Your task to perform on an android device: Show the shopping cart on costco. Search for "razer blade" on costco, select the first entry, add it to the cart, then select checkout. Image 0: 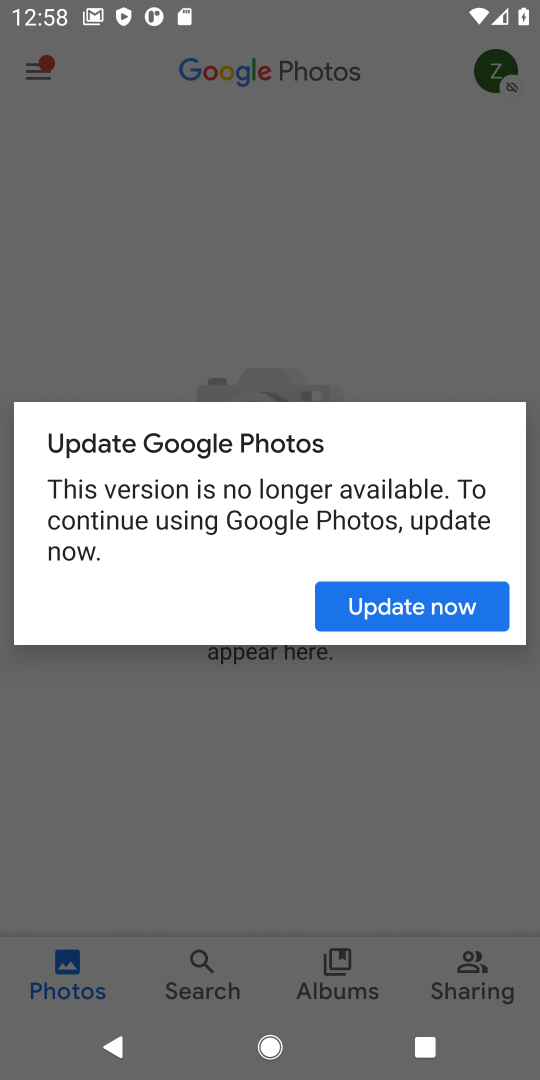
Step 0: press home button
Your task to perform on an android device: Show the shopping cart on costco. Search for "razer blade" on costco, select the first entry, add it to the cart, then select checkout. Image 1: 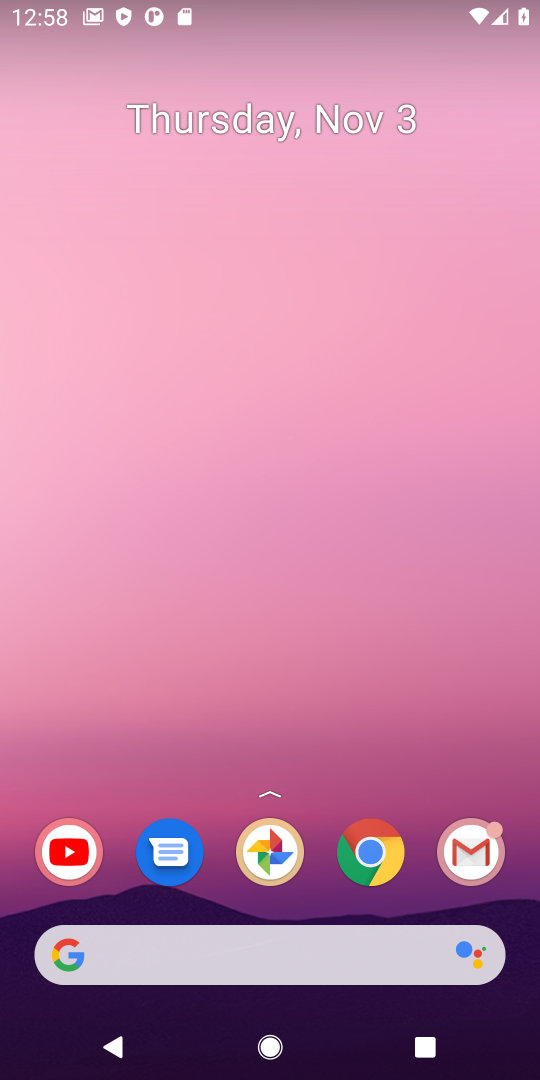
Step 1: click (372, 853)
Your task to perform on an android device: Show the shopping cart on costco. Search for "razer blade" on costco, select the first entry, add it to the cart, then select checkout. Image 2: 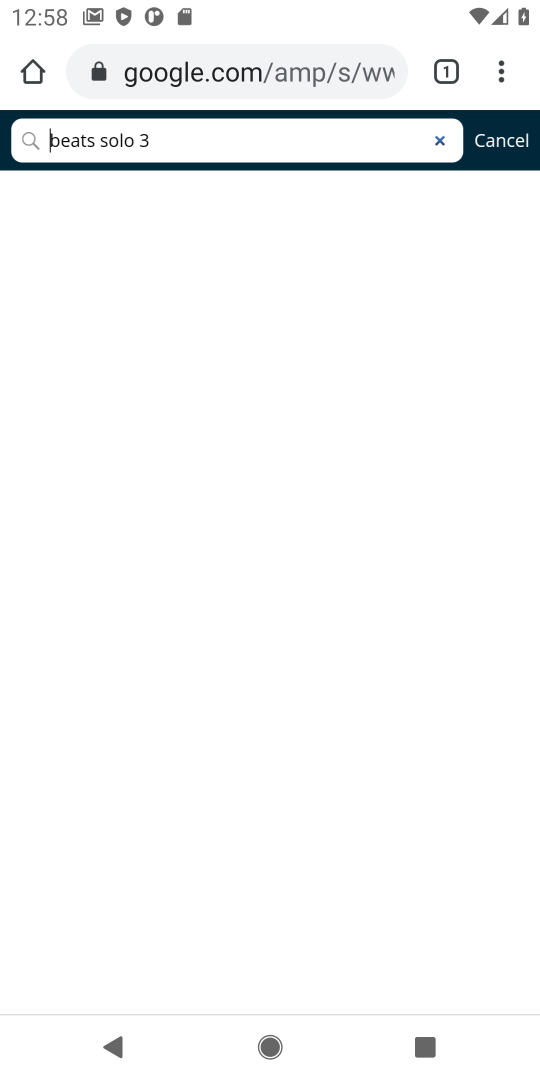
Step 2: click (230, 80)
Your task to perform on an android device: Show the shopping cart on costco. Search for "razer blade" on costco, select the first entry, add it to the cart, then select checkout. Image 3: 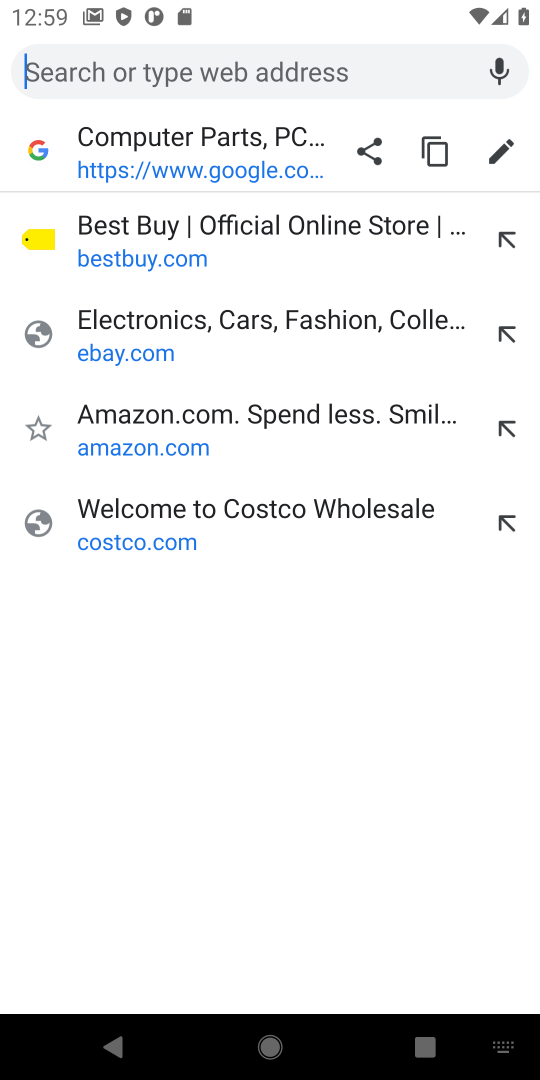
Step 3: type "costco.com"
Your task to perform on an android device: Show the shopping cart on costco. Search for "razer blade" on costco, select the first entry, add it to the cart, then select checkout. Image 4: 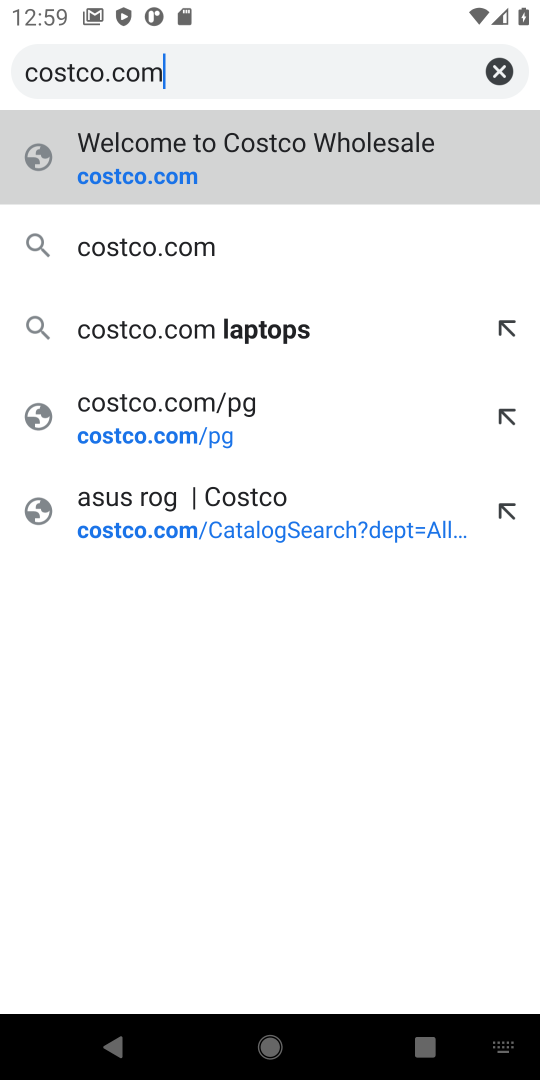
Step 4: click (171, 186)
Your task to perform on an android device: Show the shopping cart on costco. Search for "razer blade" on costco, select the first entry, add it to the cart, then select checkout. Image 5: 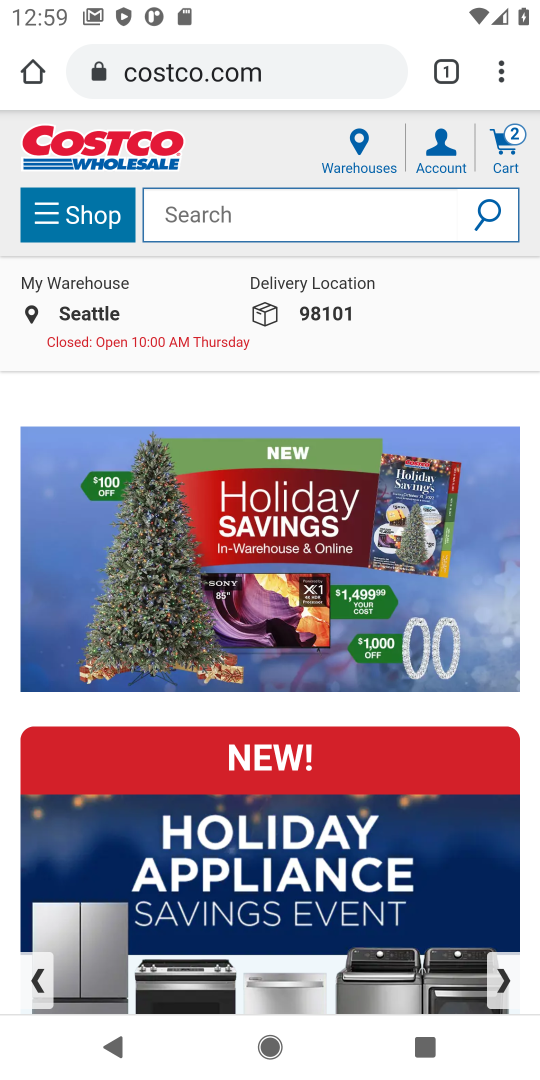
Step 5: click (496, 144)
Your task to perform on an android device: Show the shopping cart on costco. Search for "razer blade" on costco, select the first entry, add it to the cart, then select checkout. Image 6: 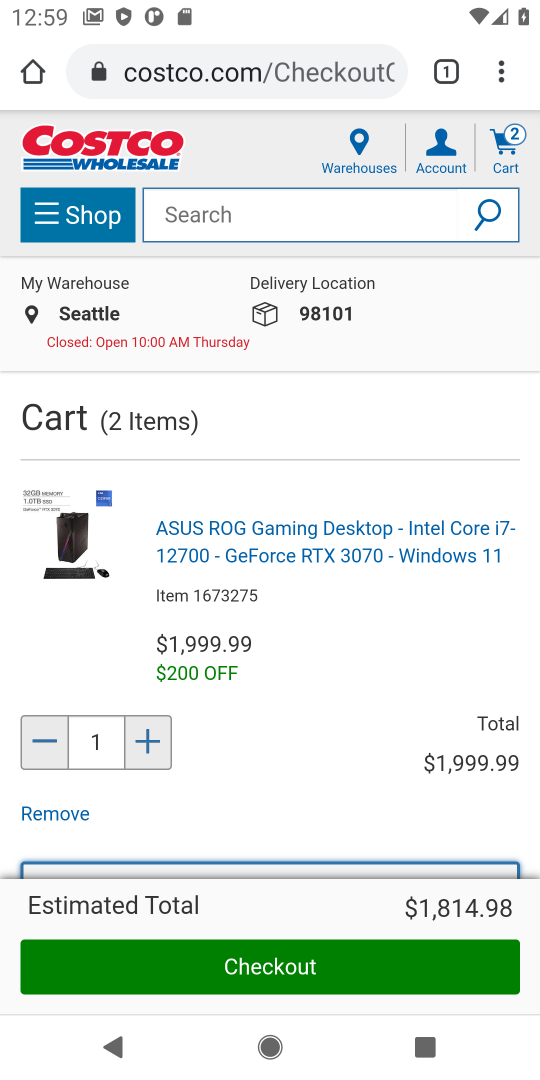
Step 6: drag from (323, 699) to (341, 397)
Your task to perform on an android device: Show the shopping cart on costco. Search for "razer blade" on costco, select the first entry, add it to the cart, then select checkout. Image 7: 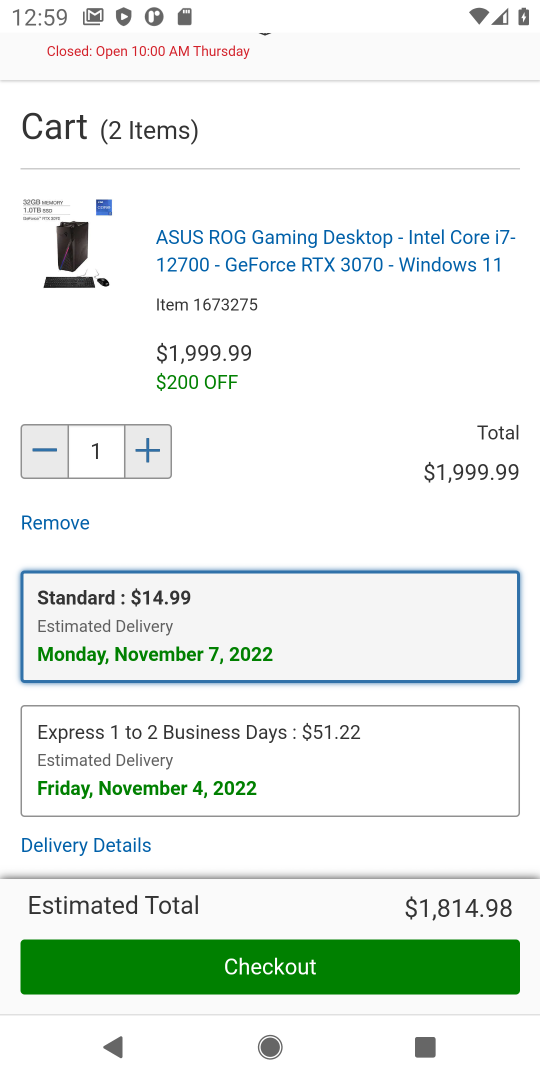
Step 7: drag from (185, 275) to (224, 777)
Your task to perform on an android device: Show the shopping cart on costco. Search for "razer blade" on costco, select the first entry, add it to the cart, then select checkout. Image 8: 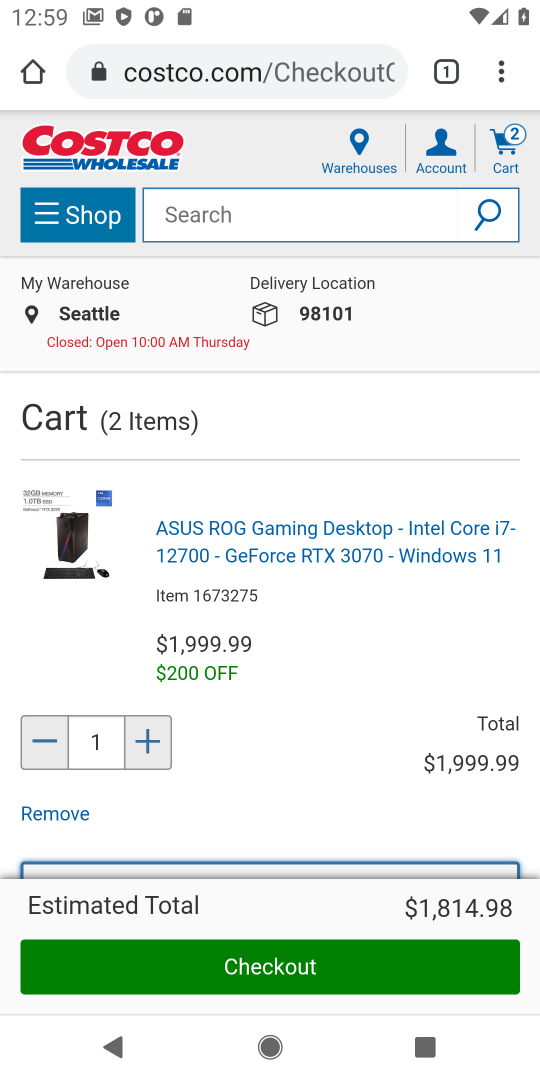
Step 8: click (232, 147)
Your task to perform on an android device: Show the shopping cart on costco. Search for "razer blade" on costco, select the first entry, add it to the cart, then select checkout. Image 9: 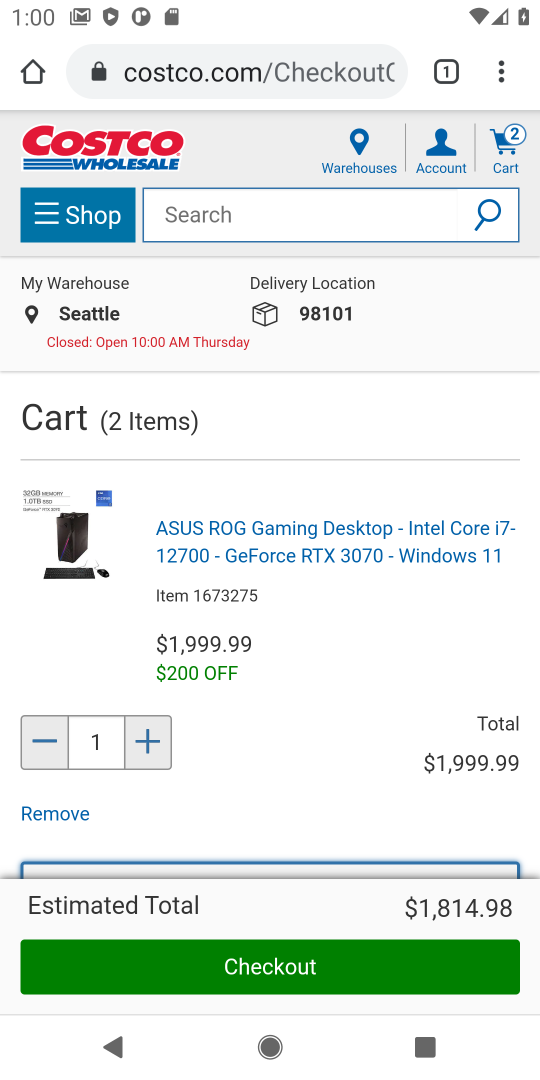
Step 9: click (180, 221)
Your task to perform on an android device: Show the shopping cart on costco. Search for "razer blade" on costco, select the first entry, add it to the cart, then select checkout. Image 10: 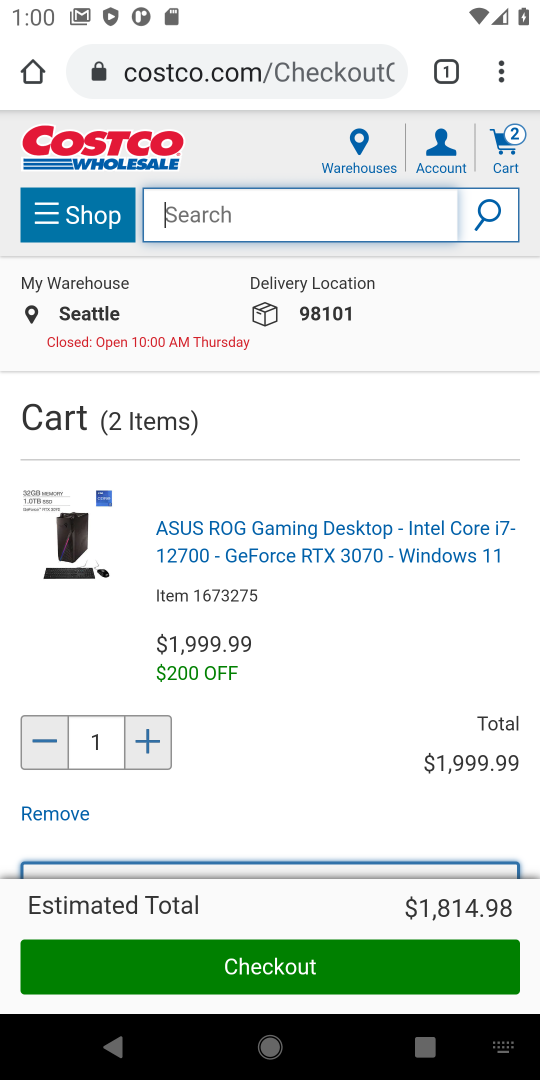
Step 10: type "razer blade"
Your task to perform on an android device: Show the shopping cart on costco. Search for "razer blade" on costco, select the first entry, add it to the cart, then select checkout. Image 11: 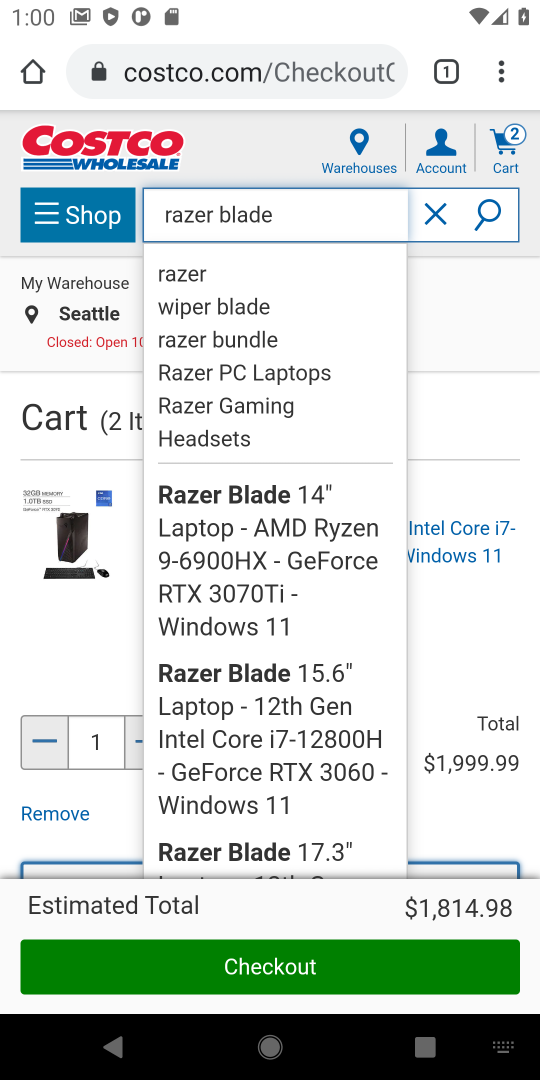
Step 11: click (484, 215)
Your task to perform on an android device: Show the shopping cart on costco. Search for "razer blade" on costco, select the first entry, add it to the cart, then select checkout. Image 12: 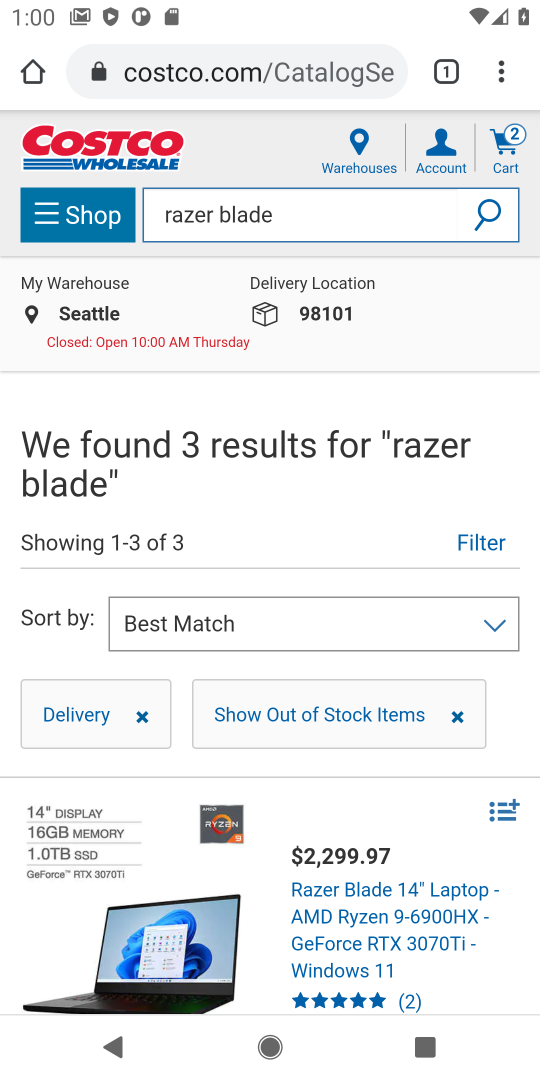
Step 12: click (337, 944)
Your task to perform on an android device: Show the shopping cart on costco. Search for "razer blade" on costco, select the first entry, add it to the cart, then select checkout. Image 13: 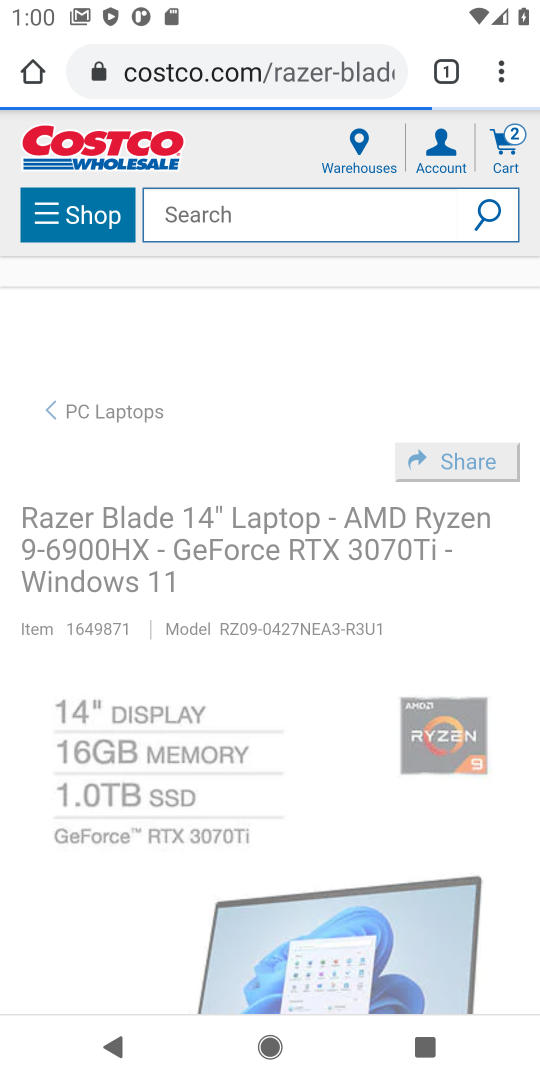
Step 13: drag from (234, 806) to (251, 203)
Your task to perform on an android device: Show the shopping cart on costco. Search for "razer blade" on costco, select the first entry, add it to the cart, then select checkout. Image 14: 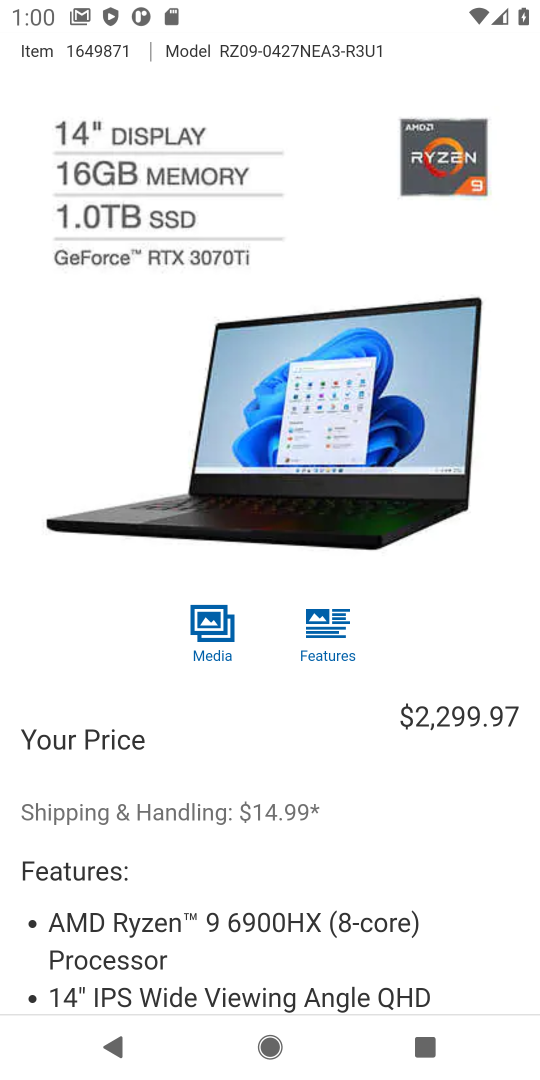
Step 14: drag from (199, 577) to (211, 193)
Your task to perform on an android device: Show the shopping cart on costco. Search for "razer blade" on costco, select the first entry, add it to the cart, then select checkout. Image 15: 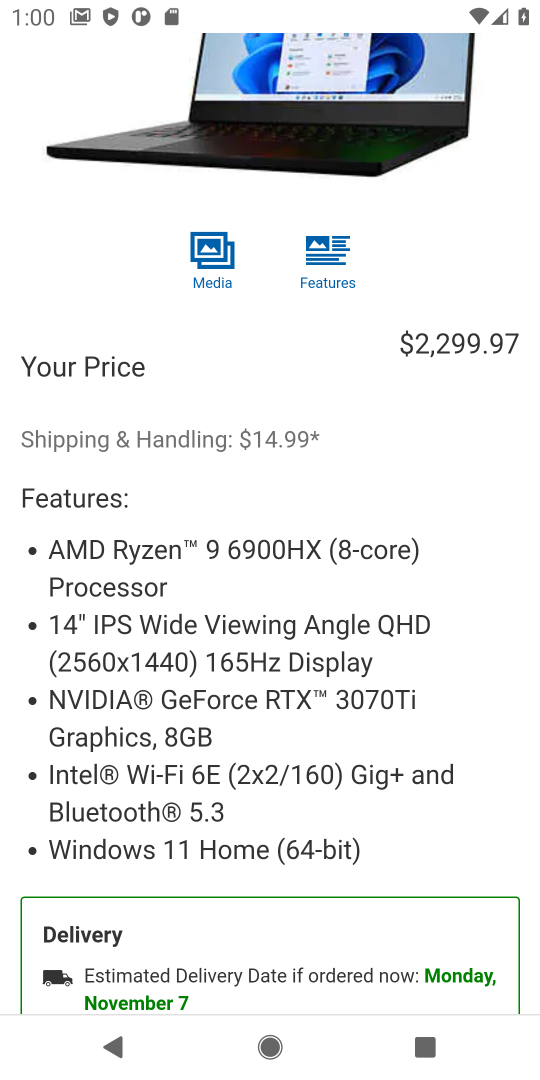
Step 15: drag from (211, 742) to (209, 259)
Your task to perform on an android device: Show the shopping cart on costco. Search for "razer blade" on costco, select the first entry, add it to the cart, then select checkout. Image 16: 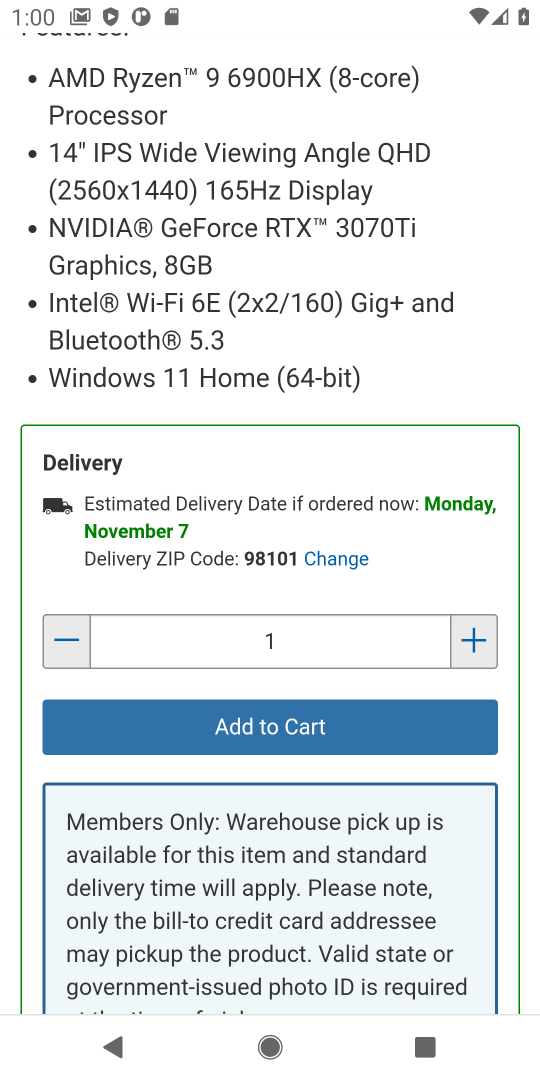
Step 16: click (227, 734)
Your task to perform on an android device: Show the shopping cart on costco. Search for "razer blade" on costco, select the first entry, add it to the cart, then select checkout. Image 17: 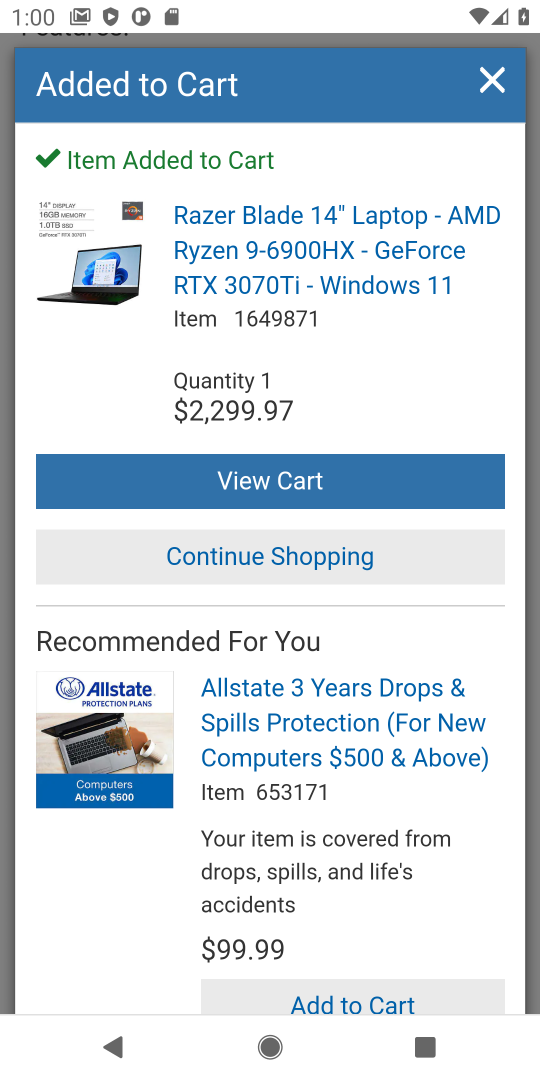
Step 17: click (244, 489)
Your task to perform on an android device: Show the shopping cart on costco. Search for "razer blade" on costco, select the first entry, add it to the cart, then select checkout. Image 18: 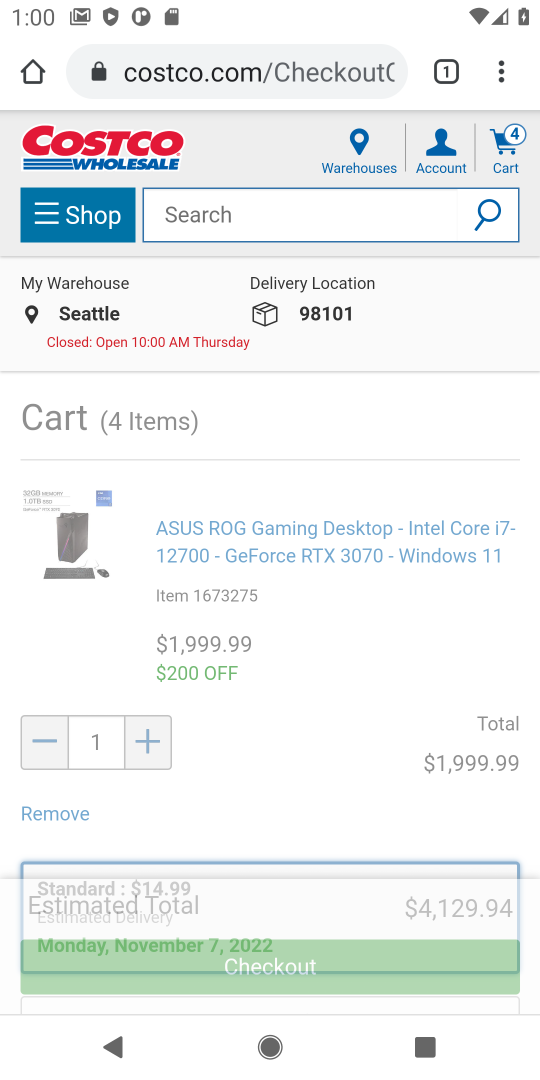
Step 18: drag from (305, 812) to (310, 347)
Your task to perform on an android device: Show the shopping cart on costco. Search for "razer blade" on costco, select the first entry, add it to the cart, then select checkout. Image 19: 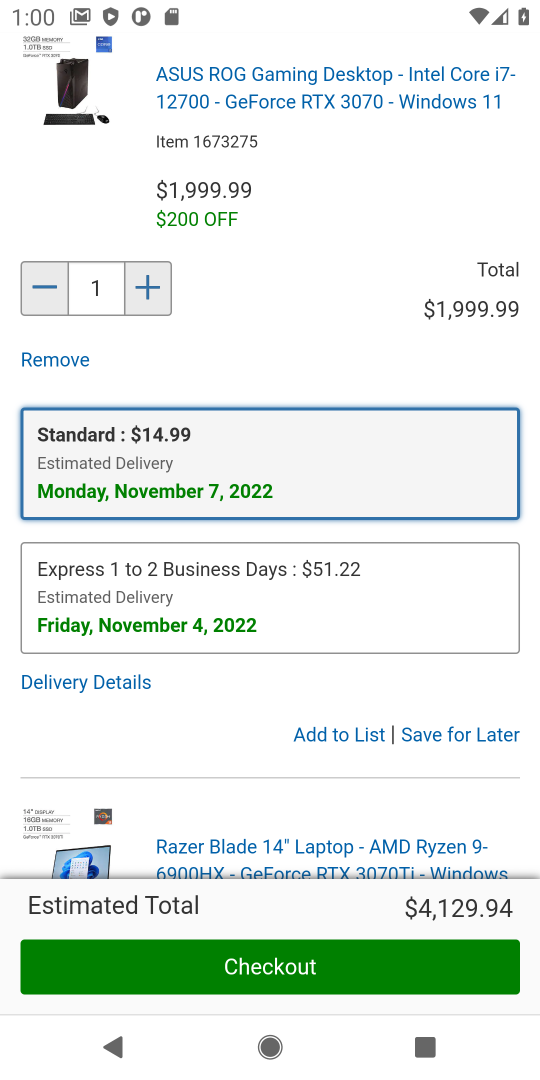
Step 19: click (259, 968)
Your task to perform on an android device: Show the shopping cart on costco. Search for "razer blade" on costco, select the first entry, add it to the cart, then select checkout. Image 20: 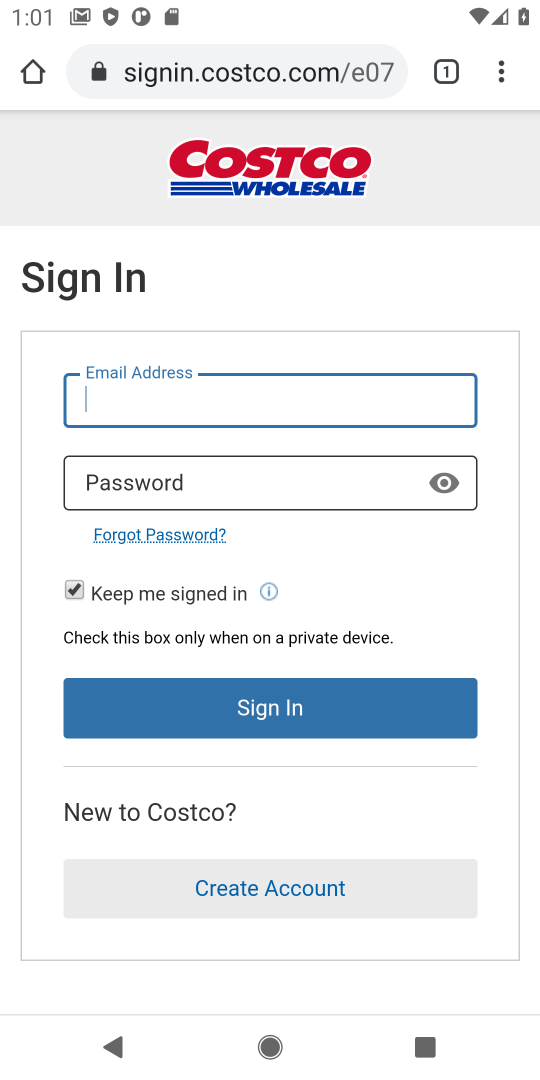
Step 20: task complete